Your task to perform on an android device: toggle airplane mode Image 0: 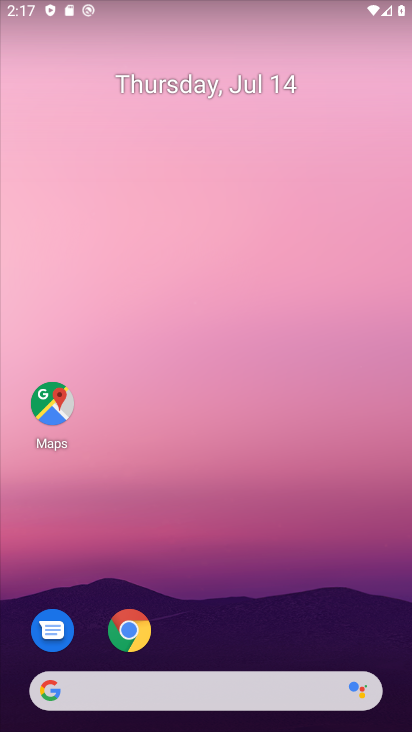
Step 0: press home button
Your task to perform on an android device: toggle airplane mode Image 1: 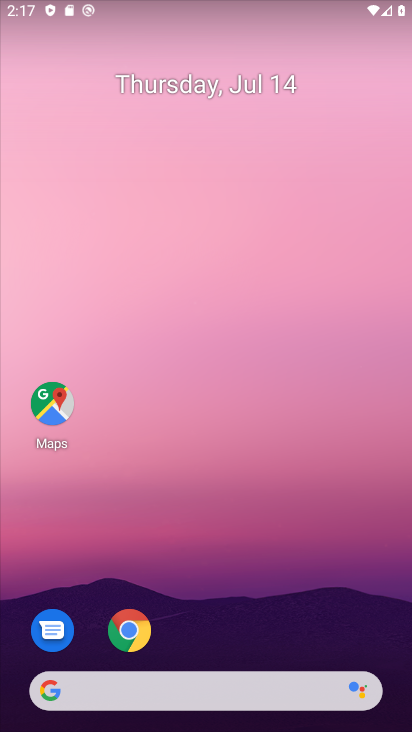
Step 1: task complete